Your task to perform on an android device: Open calendar and show me the first week of next month Image 0: 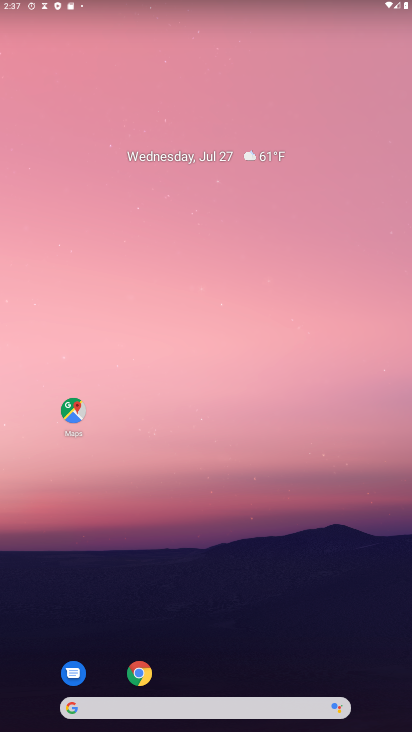
Step 0: click (82, 706)
Your task to perform on an android device: Open calendar and show me the first week of next month Image 1: 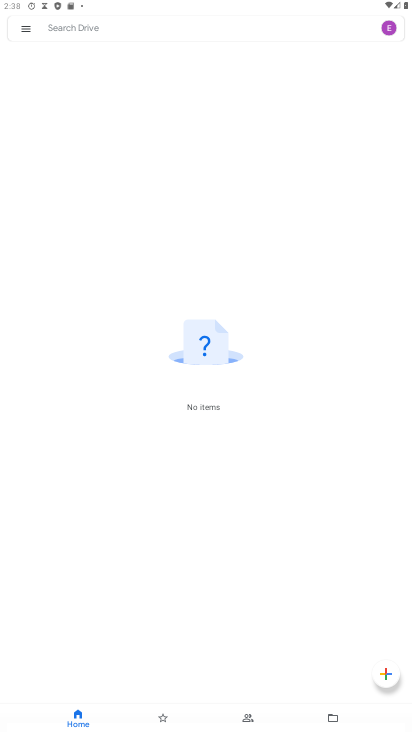
Step 1: press home button
Your task to perform on an android device: Open calendar and show me the first week of next month Image 2: 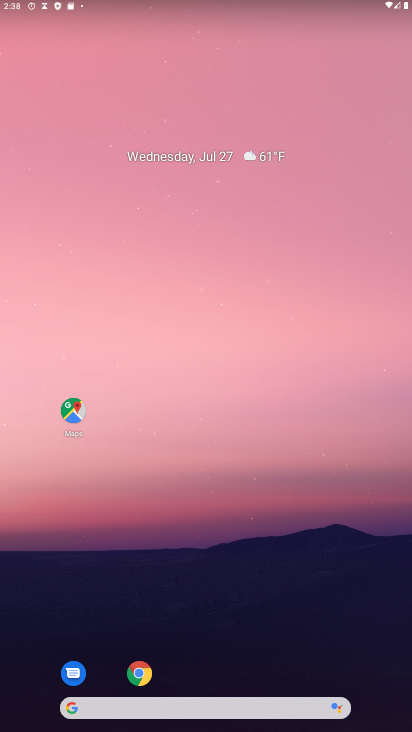
Step 2: drag from (8, 705) to (231, 19)
Your task to perform on an android device: Open calendar and show me the first week of next month Image 3: 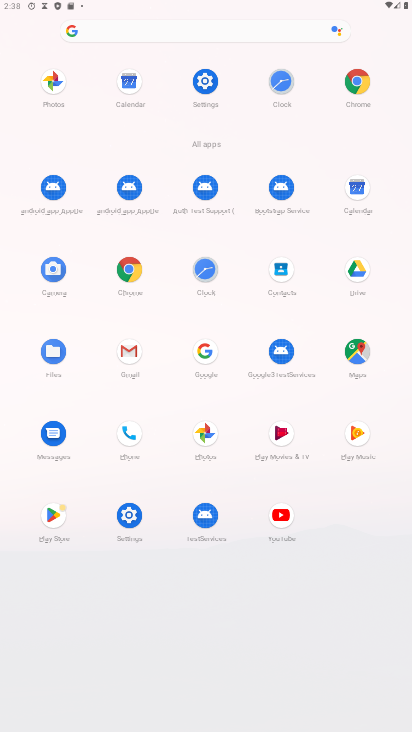
Step 3: click (351, 200)
Your task to perform on an android device: Open calendar and show me the first week of next month Image 4: 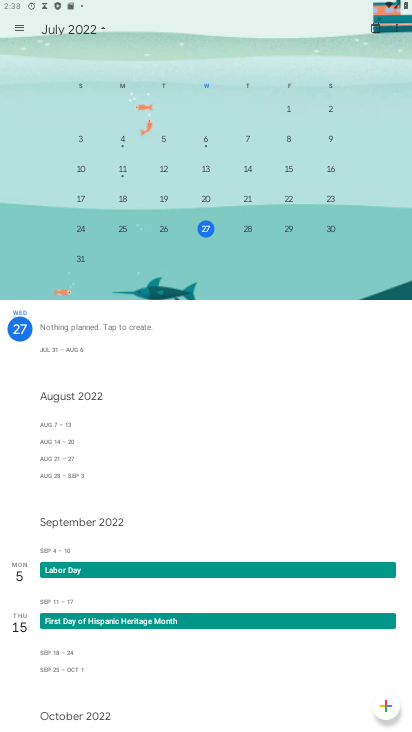
Step 4: task complete